Your task to perform on an android device: snooze an email in the gmail app Image 0: 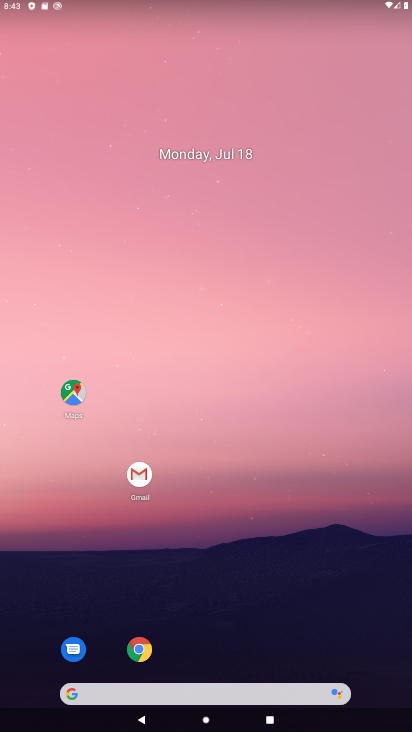
Step 0: click (359, 404)
Your task to perform on an android device: snooze an email in the gmail app Image 1: 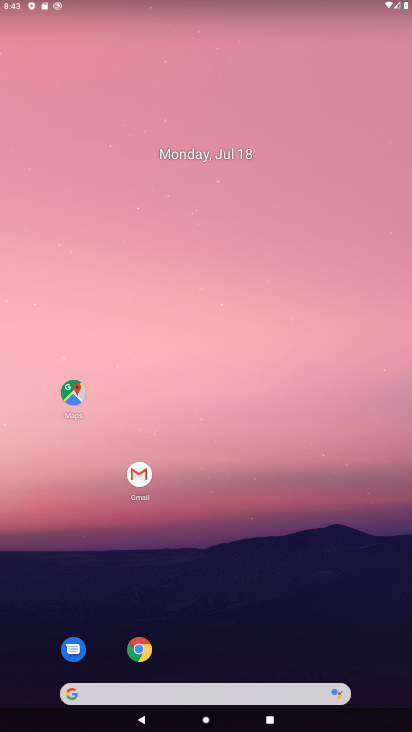
Step 1: click (134, 468)
Your task to perform on an android device: snooze an email in the gmail app Image 2: 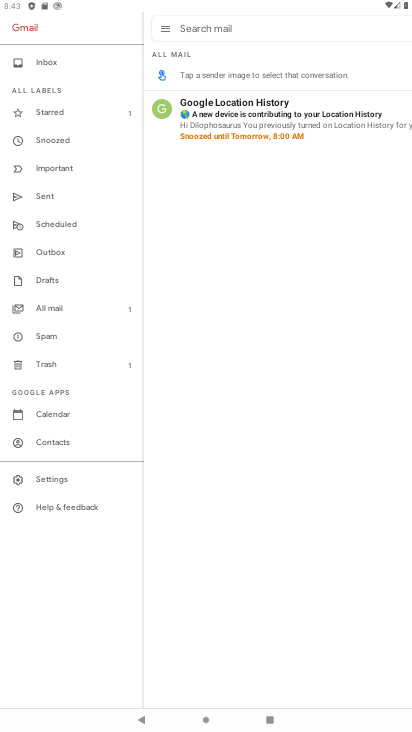
Step 2: click (44, 138)
Your task to perform on an android device: snooze an email in the gmail app Image 3: 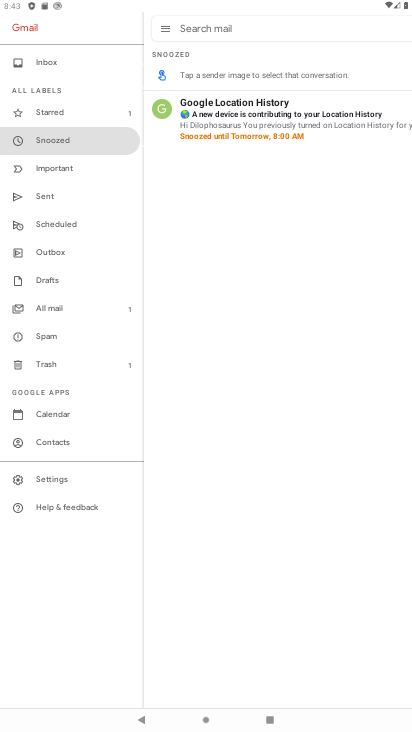
Step 3: task complete